Your task to perform on an android device: Go to Maps Image 0: 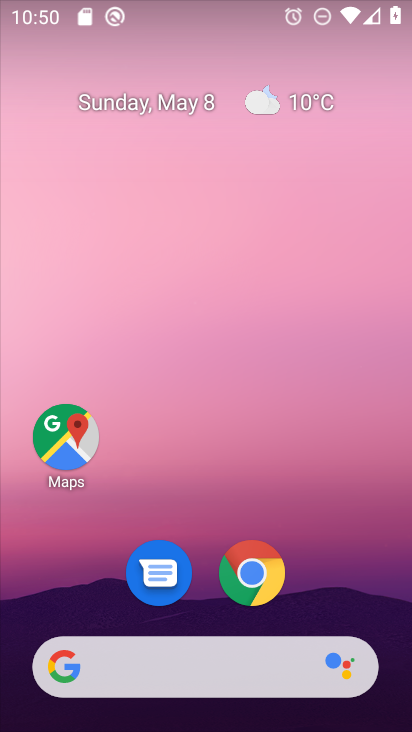
Step 0: drag from (339, 508) to (411, 7)
Your task to perform on an android device: Go to Maps Image 1: 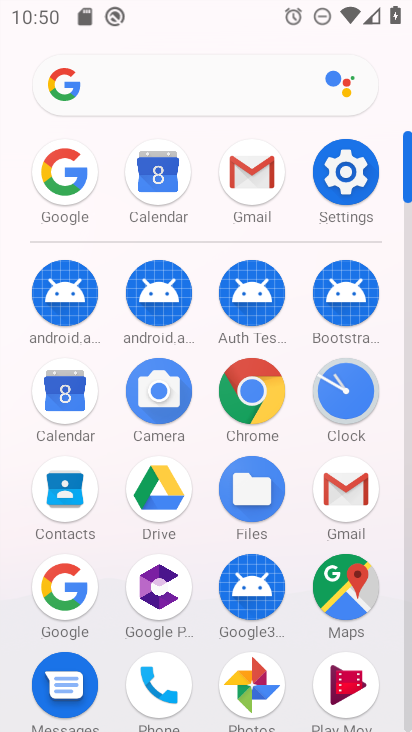
Step 1: click (345, 574)
Your task to perform on an android device: Go to Maps Image 2: 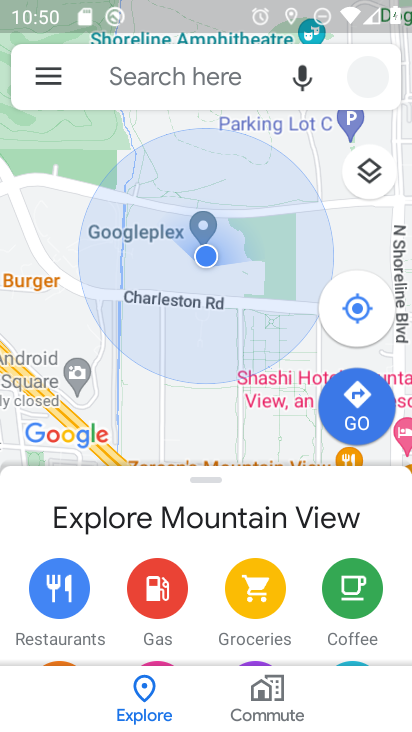
Step 2: task complete